Your task to perform on an android device: add a label to a message in the gmail app Image 0: 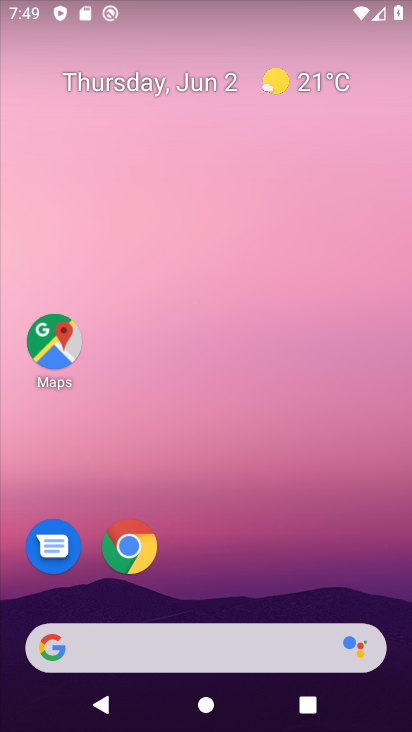
Step 0: drag from (235, 543) to (236, 23)
Your task to perform on an android device: add a label to a message in the gmail app Image 1: 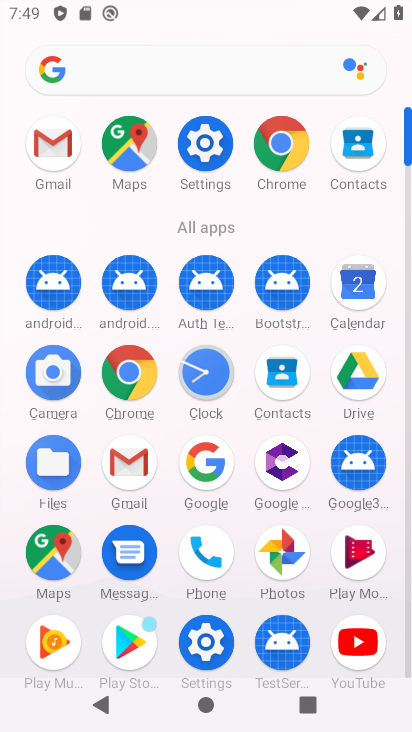
Step 1: click (201, 133)
Your task to perform on an android device: add a label to a message in the gmail app Image 2: 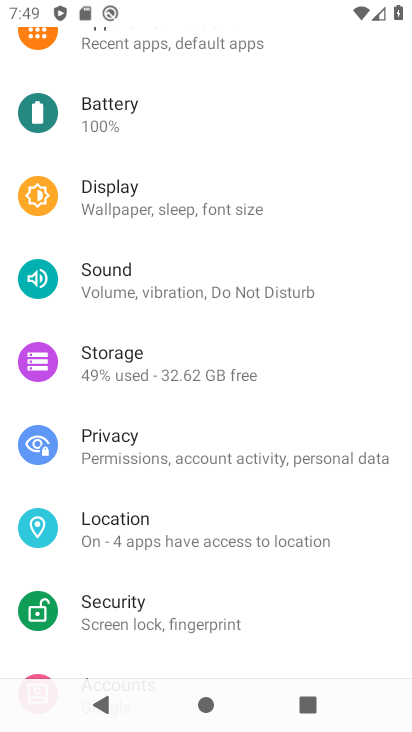
Step 2: click (194, 197)
Your task to perform on an android device: add a label to a message in the gmail app Image 3: 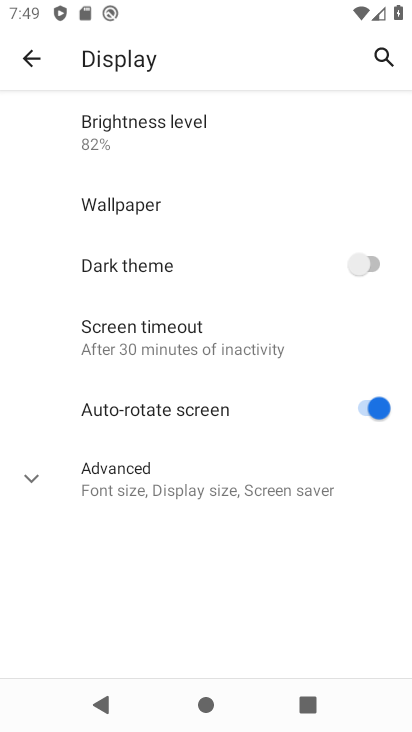
Step 3: click (33, 475)
Your task to perform on an android device: add a label to a message in the gmail app Image 4: 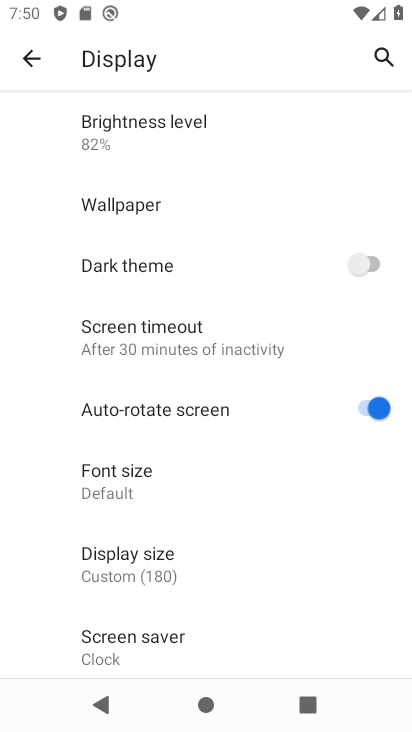
Step 4: press home button
Your task to perform on an android device: add a label to a message in the gmail app Image 5: 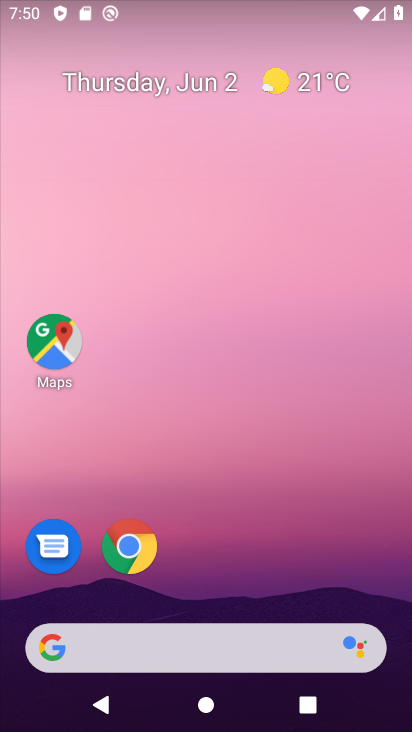
Step 5: drag from (230, 548) to (196, 59)
Your task to perform on an android device: add a label to a message in the gmail app Image 6: 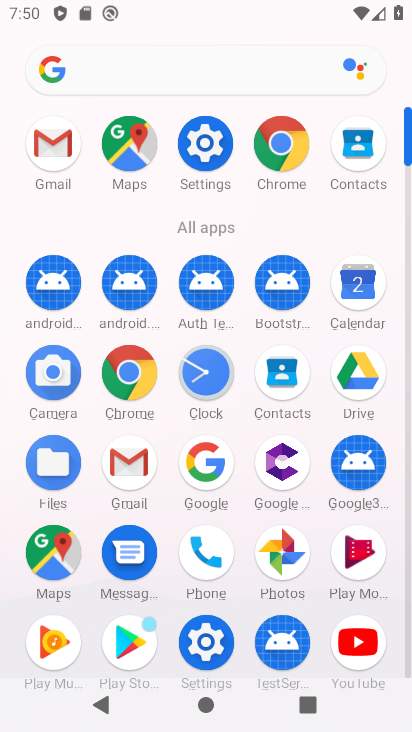
Step 6: click (54, 136)
Your task to perform on an android device: add a label to a message in the gmail app Image 7: 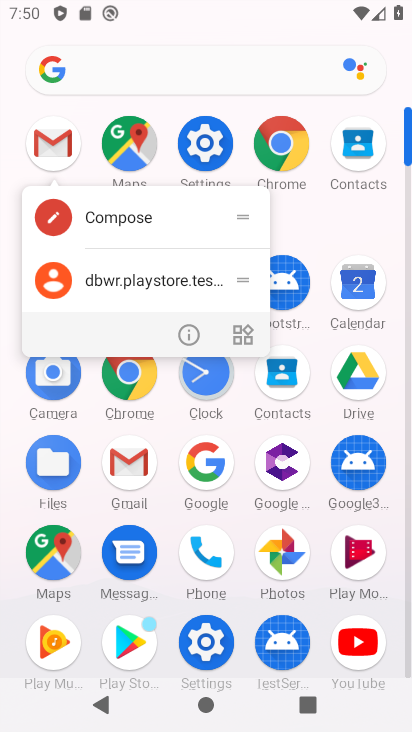
Step 7: click (55, 138)
Your task to perform on an android device: add a label to a message in the gmail app Image 8: 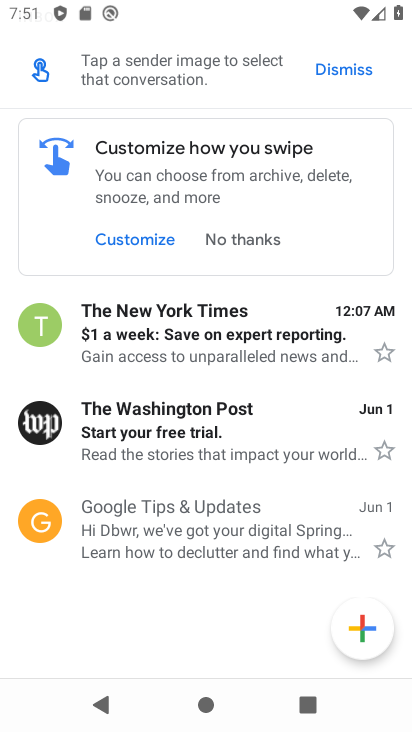
Step 8: click (265, 342)
Your task to perform on an android device: add a label to a message in the gmail app Image 9: 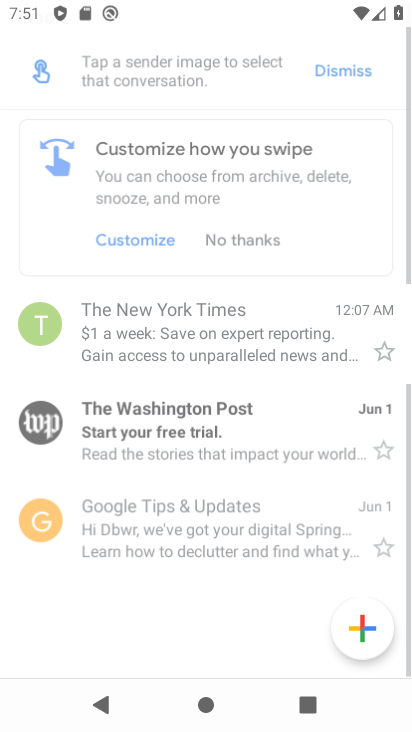
Step 9: click (387, 57)
Your task to perform on an android device: add a label to a message in the gmail app Image 10: 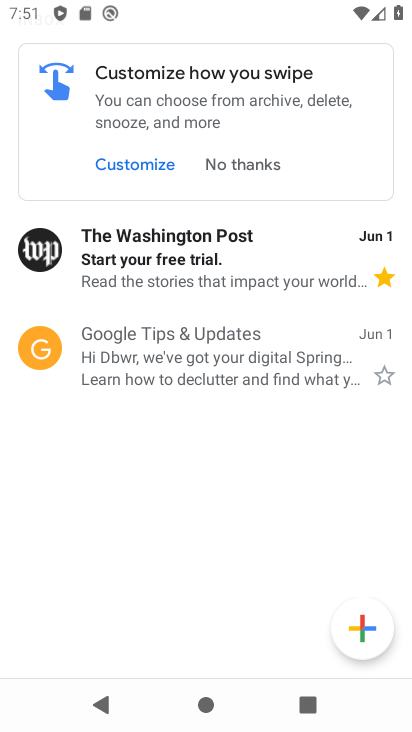
Step 10: click (240, 355)
Your task to perform on an android device: add a label to a message in the gmail app Image 11: 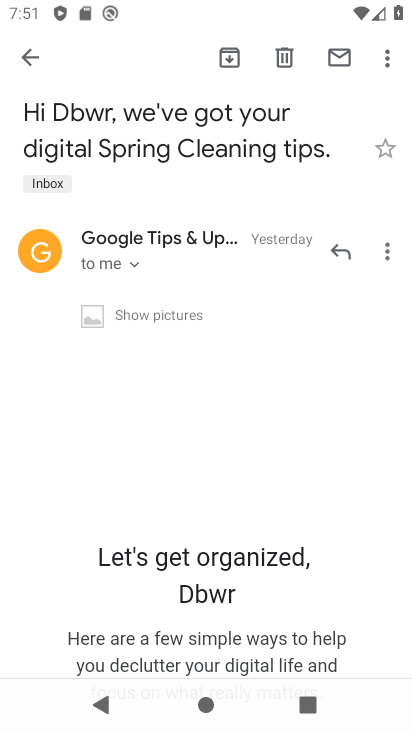
Step 11: drag from (269, 441) to (271, 265)
Your task to perform on an android device: add a label to a message in the gmail app Image 12: 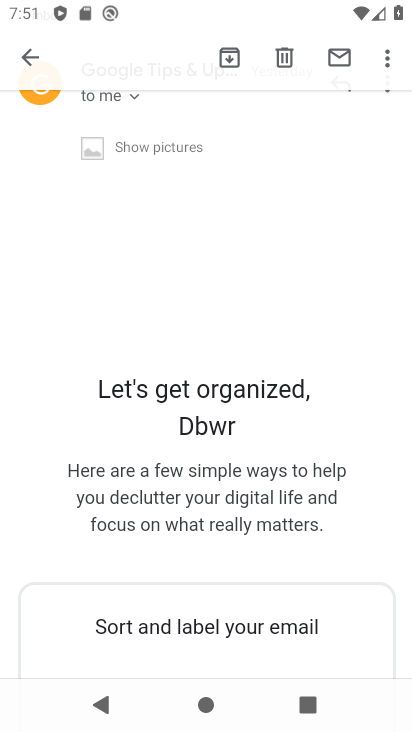
Step 12: drag from (248, 451) to (247, 235)
Your task to perform on an android device: add a label to a message in the gmail app Image 13: 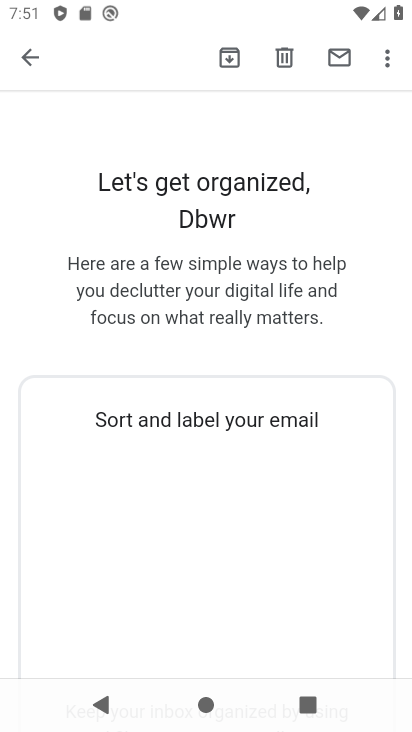
Step 13: drag from (260, 495) to (264, 232)
Your task to perform on an android device: add a label to a message in the gmail app Image 14: 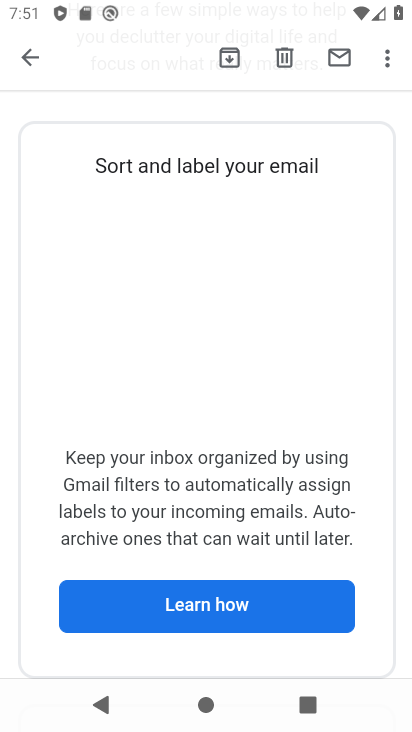
Step 14: click (29, 57)
Your task to perform on an android device: add a label to a message in the gmail app Image 15: 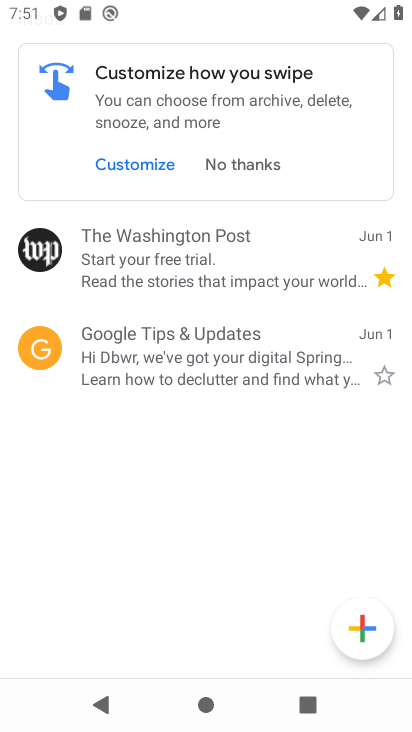
Step 15: click (270, 361)
Your task to perform on an android device: add a label to a message in the gmail app Image 16: 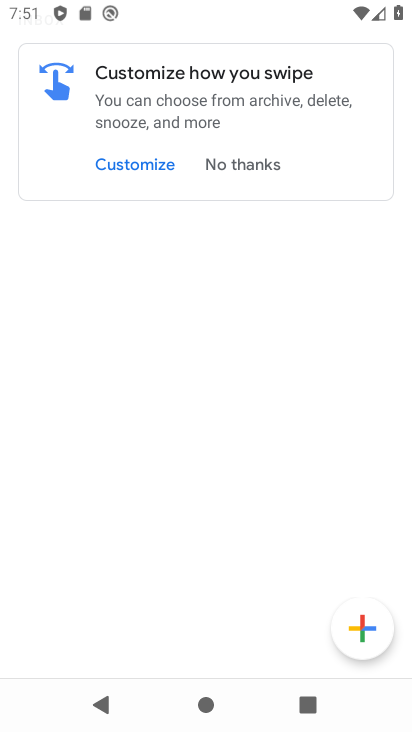
Step 16: click (250, 157)
Your task to perform on an android device: add a label to a message in the gmail app Image 17: 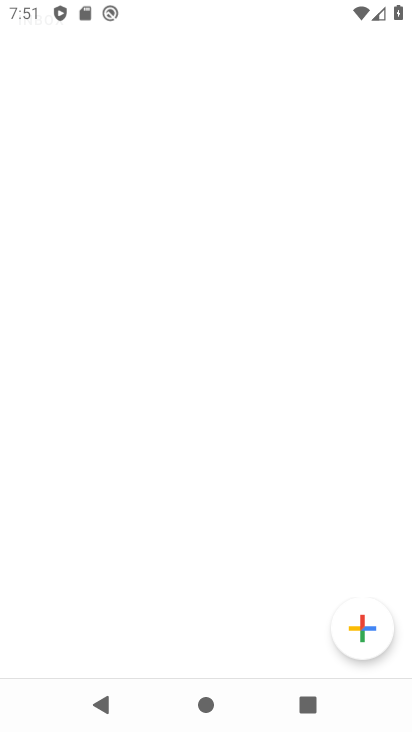
Step 17: press back button
Your task to perform on an android device: add a label to a message in the gmail app Image 18: 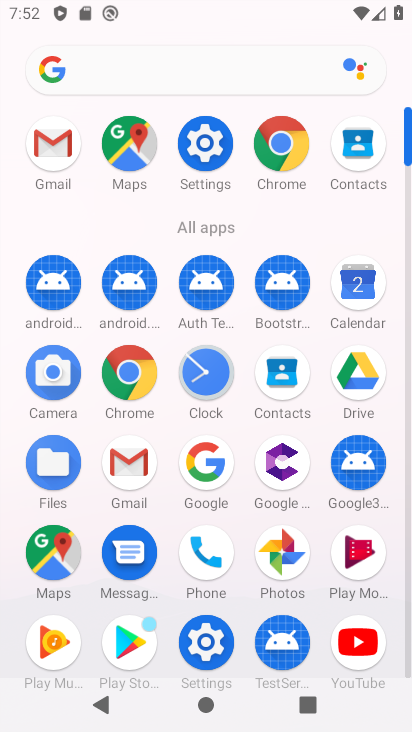
Step 18: click (63, 143)
Your task to perform on an android device: add a label to a message in the gmail app Image 19: 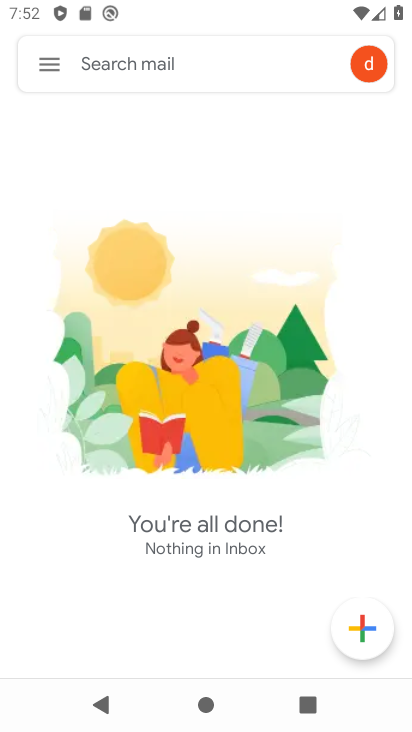
Step 19: click (44, 62)
Your task to perform on an android device: add a label to a message in the gmail app Image 20: 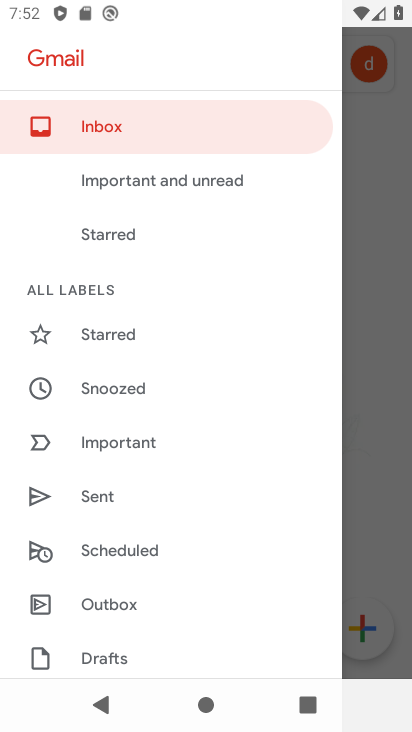
Step 20: drag from (186, 507) to (174, 187)
Your task to perform on an android device: add a label to a message in the gmail app Image 21: 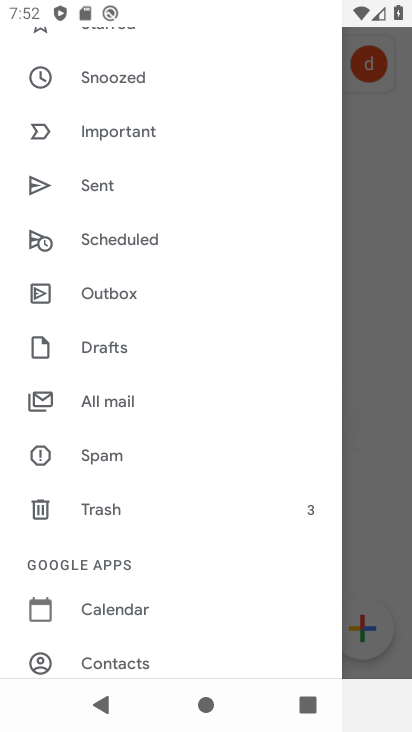
Step 21: click (158, 393)
Your task to perform on an android device: add a label to a message in the gmail app Image 22: 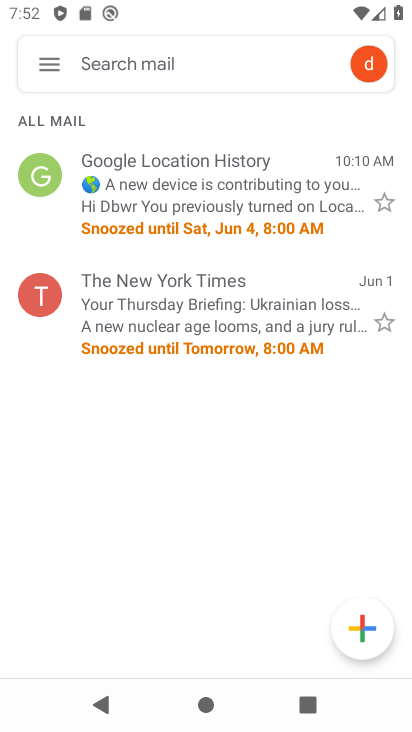
Step 22: click (207, 309)
Your task to perform on an android device: add a label to a message in the gmail app Image 23: 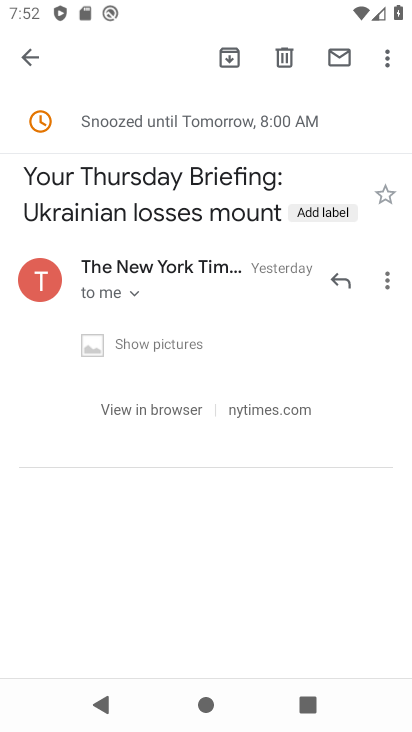
Step 23: click (382, 280)
Your task to perform on an android device: add a label to a message in the gmail app Image 24: 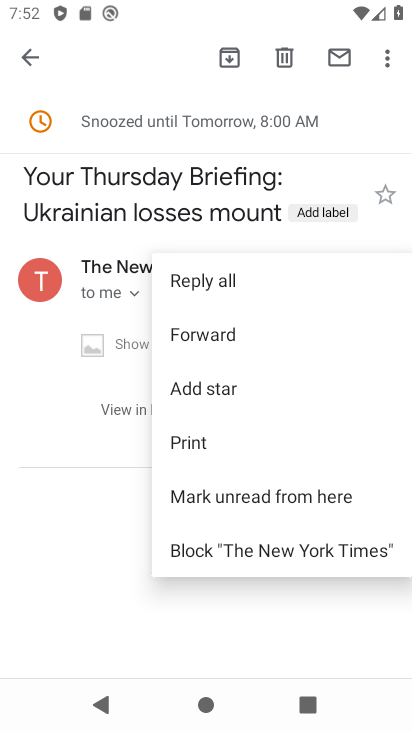
Step 24: click (110, 463)
Your task to perform on an android device: add a label to a message in the gmail app Image 25: 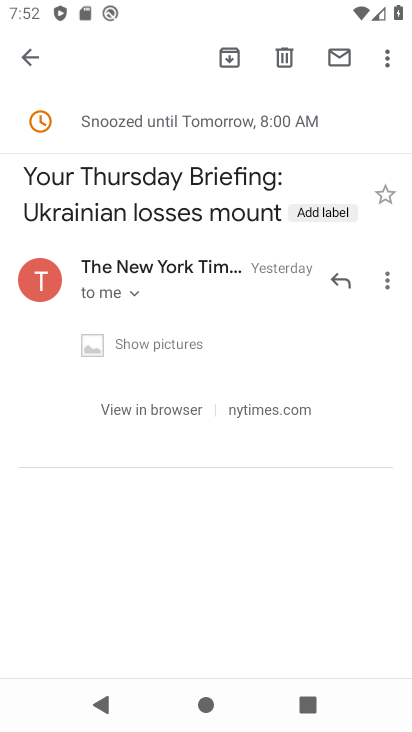
Step 25: click (384, 51)
Your task to perform on an android device: add a label to a message in the gmail app Image 26: 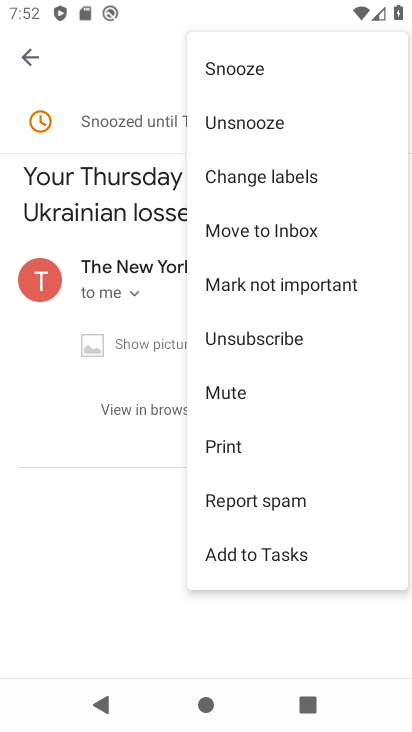
Step 26: click (320, 170)
Your task to perform on an android device: add a label to a message in the gmail app Image 27: 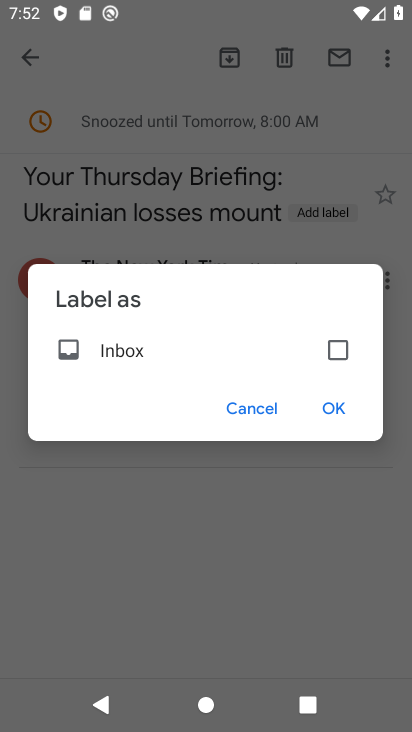
Step 27: click (334, 341)
Your task to perform on an android device: add a label to a message in the gmail app Image 28: 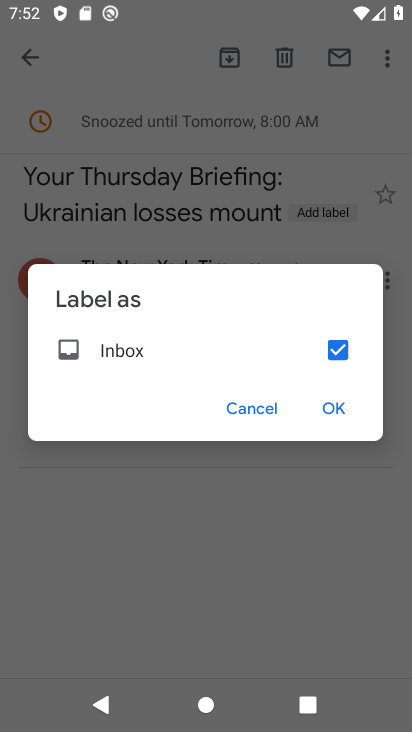
Step 28: click (332, 399)
Your task to perform on an android device: add a label to a message in the gmail app Image 29: 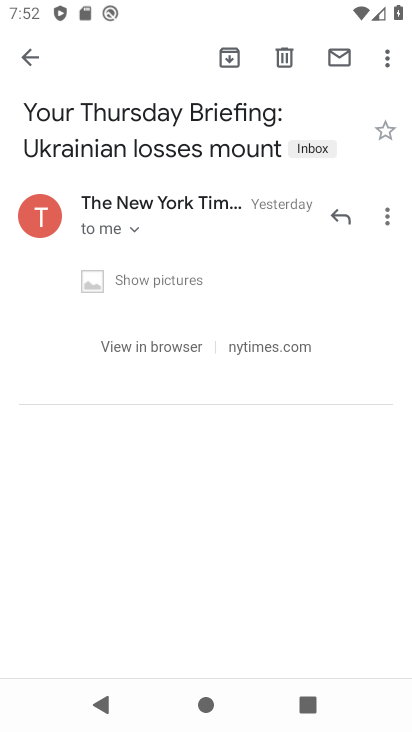
Step 29: click (34, 50)
Your task to perform on an android device: add a label to a message in the gmail app Image 30: 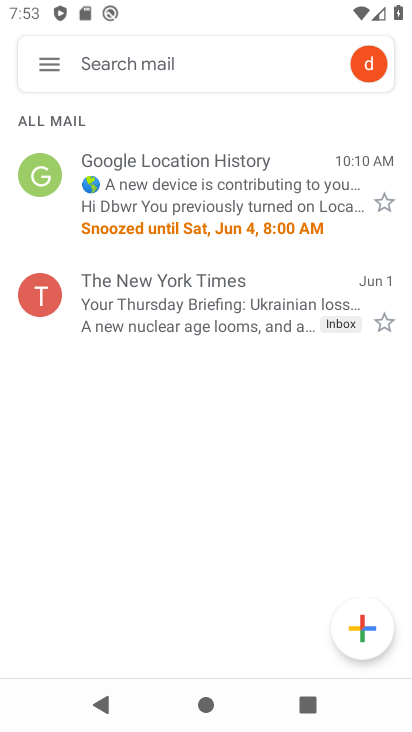
Step 30: task complete